Your task to perform on an android device: Open Google Chrome and open the bookmarks view Image 0: 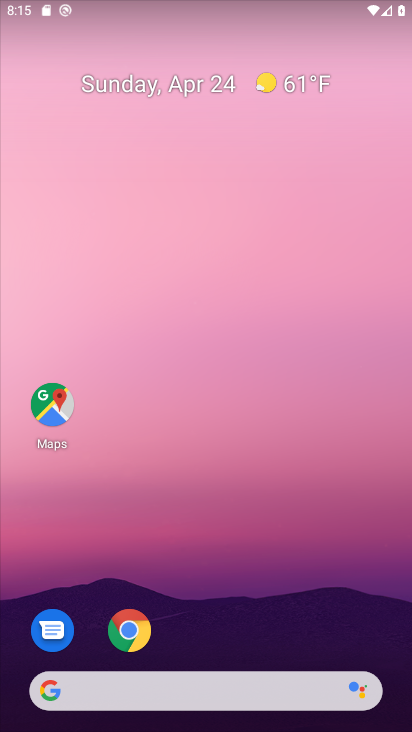
Step 0: drag from (319, 577) to (328, 106)
Your task to perform on an android device: Open Google Chrome and open the bookmarks view Image 1: 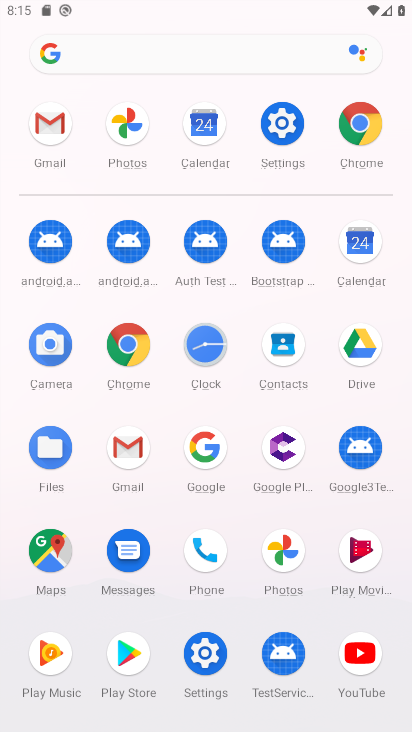
Step 1: click (351, 117)
Your task to perform on an android device: Open Google Chrome and open the bookmarks view Image 2: 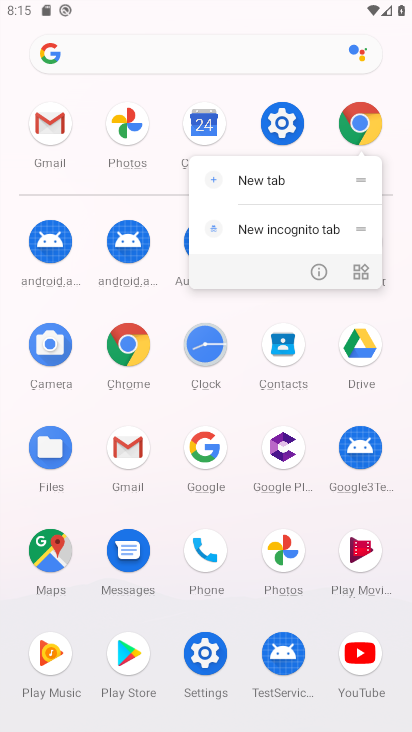
Step 2: click (358, 126)
Your task to perform on an android device: Open Google Chrome and open the bookmarks view Image 3: 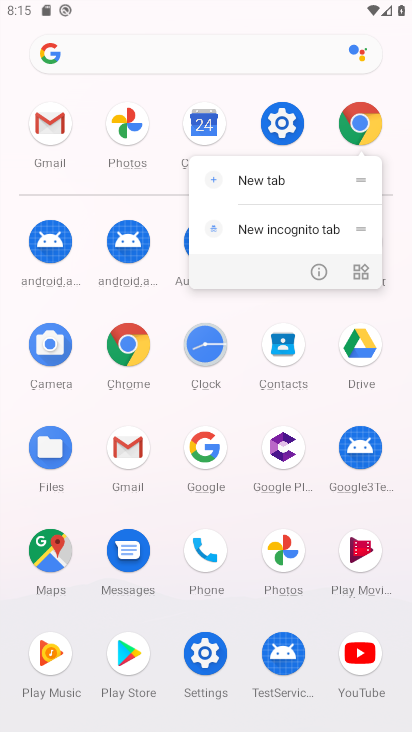
Step 3: click (369, 107)
Your task to perform on an android device: Open Google Chrome and open the bookmarks view Image 4: 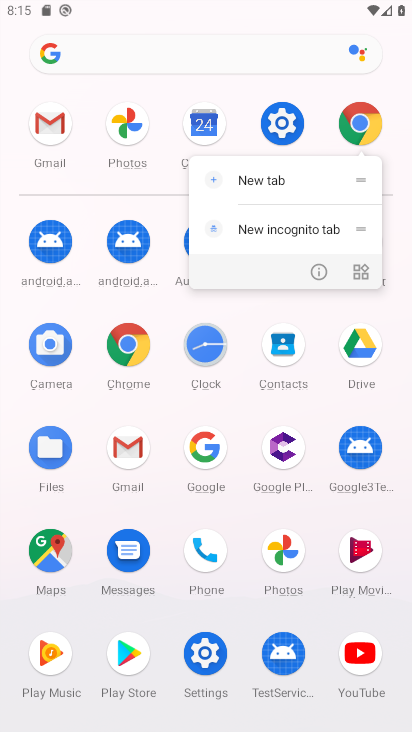
Step 4: click (355, 118)
Your task to perform on an android device: Open Google Chrome and open the bookmarks view Image 5: 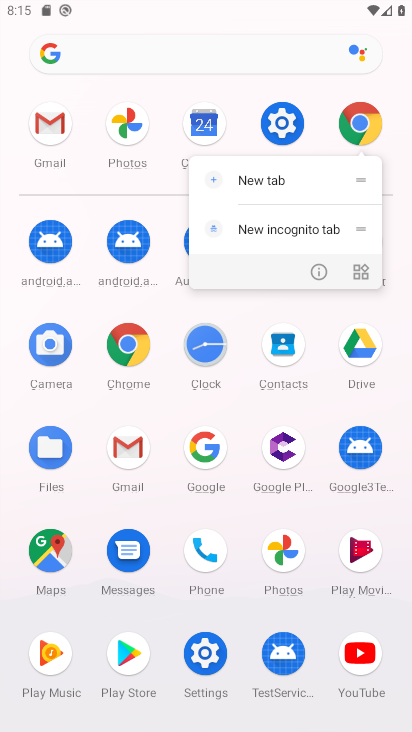
Step 5: click (382, 125)
Your task to perform on an android device: Open Google Chrome and open the bookmarks view Image 6: 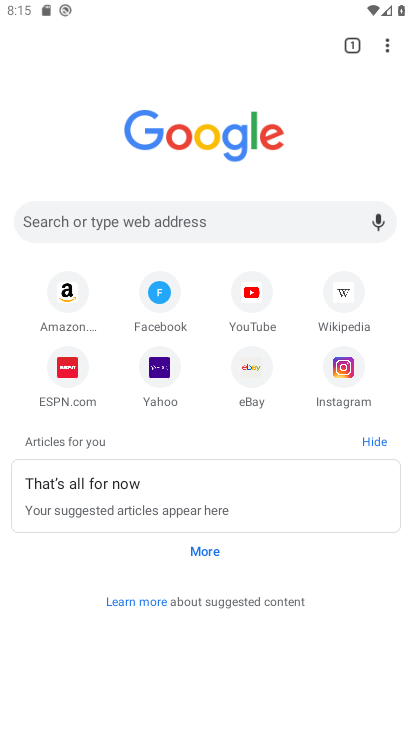
Step 6: click (386, 48)
Your task to perform on an android device: Open Google Chrome and open the bookmarks view Image 7: 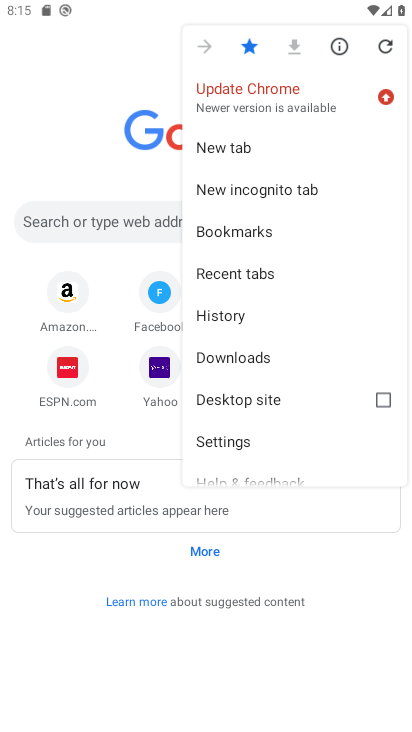
Step 7: click (273, 234)
Your task to perform on an android device: Open Google Chrome and open the bookmarks view Image 8: 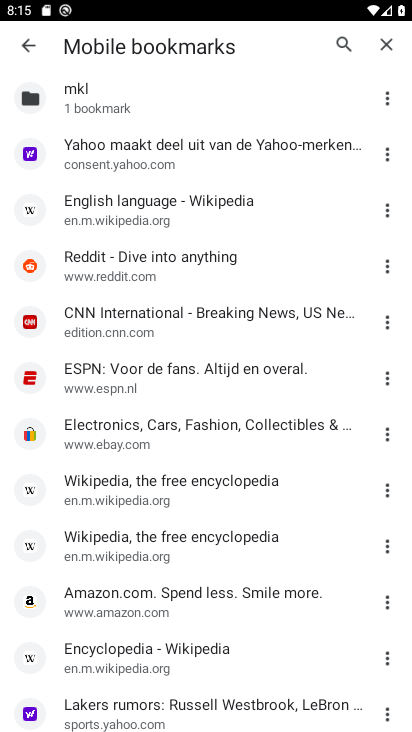
Step 8: task complete